Your task to perform on an android device: check battery use Image 0: 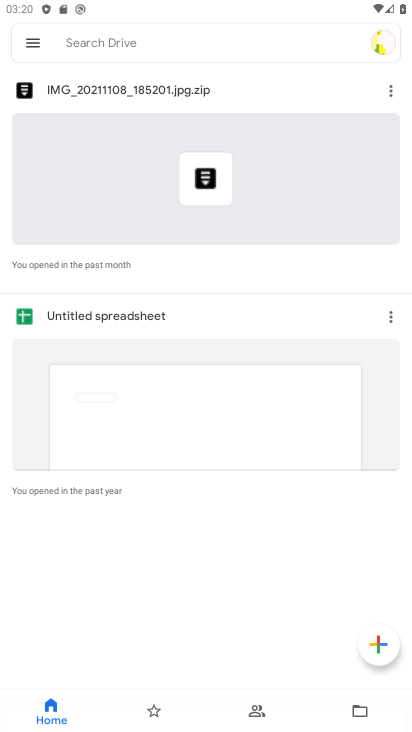
Step 0: press home button
Your task to perform on an android device: check battery use Image 1: 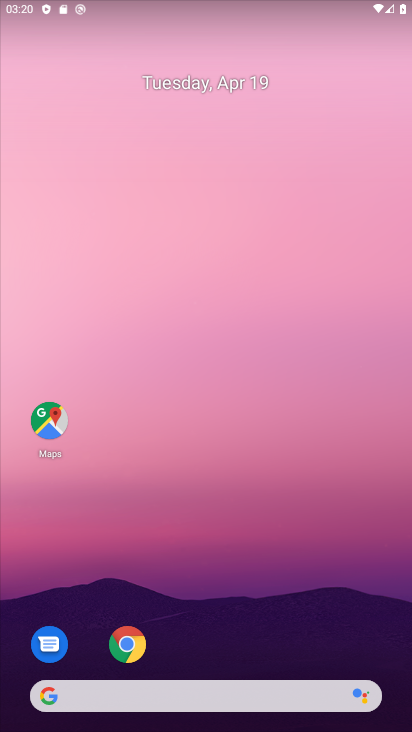
Step 1: drag from (337, 636) to (245, 114)
Your task to perform on an android device: check battery use Image 2: 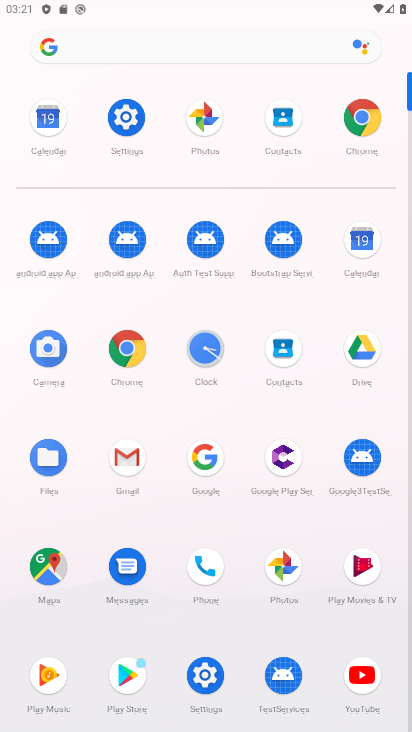
Step 2: click (200, 671)
Your task to perform on an android device: check battery use Image 3: 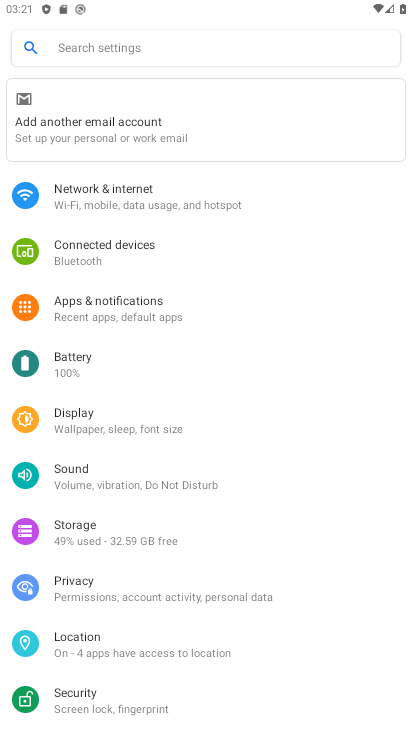
Step 3: click (70, 364)
Your task to perform on an android device: check battery use Image 4: 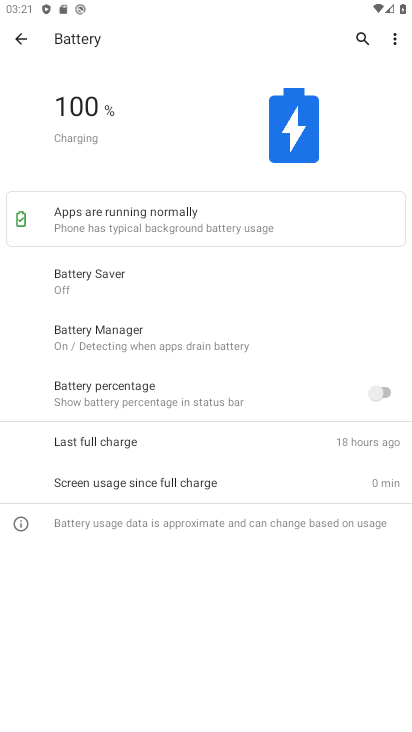
Step 4: click (392, 39)
Your task to perform on an android device: check battery use Image 5: 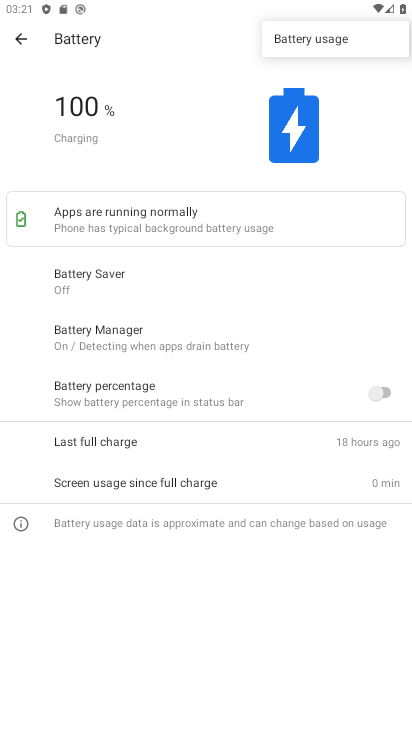
Step 5: click (315, 40)
Your task to perform on an android device: check battery use Image 6: 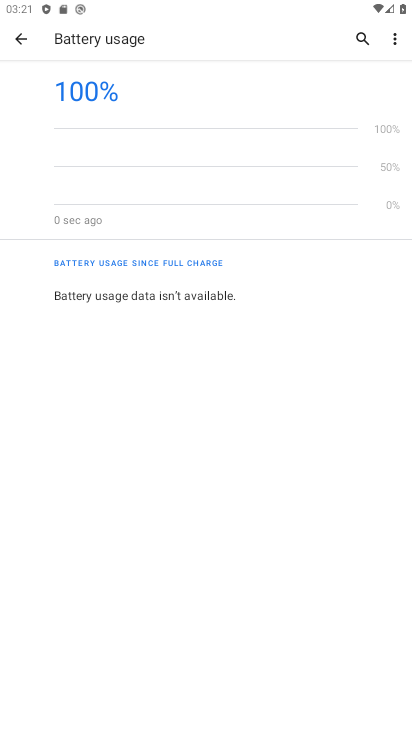
Step 6: task complete